Your task to perform on an android device: change alarm snooze length Image 0: 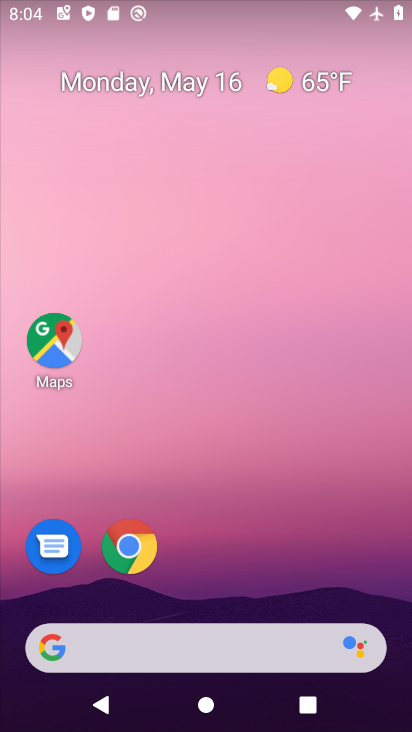
Step 0: drag from (294, 617) to (277, 148)
Your task to perform on an android device: change alarm snooze length Image 1: 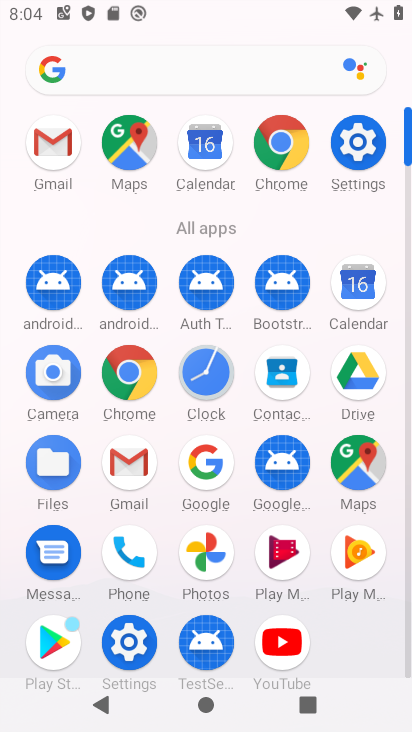
Step 1: click (210, 368)
Your task to perform on an android device: change alarm snooze length Image 2: 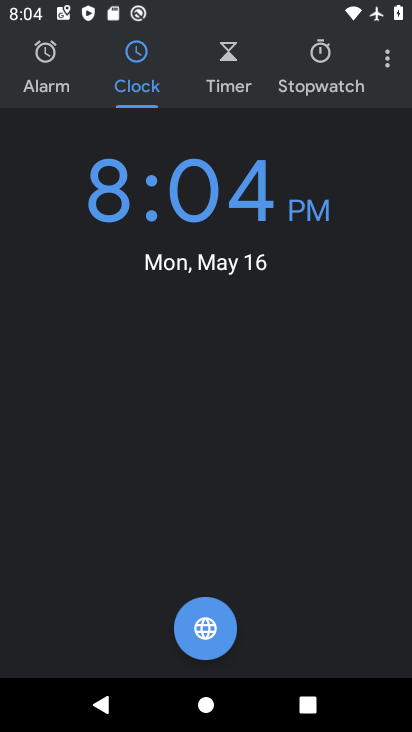
Step 2: click (389, 63)
Your task to perform on an android device: change alarm snooze length Image 3: 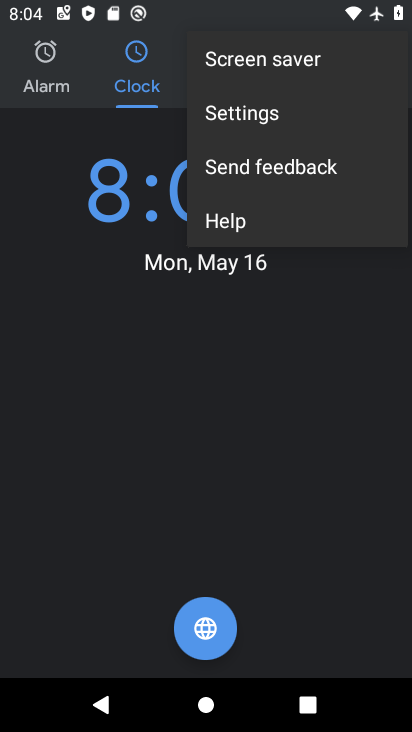
Step 3: click (310, 102)
Your task to perform on an android device: change alarm snooze length Image 4: 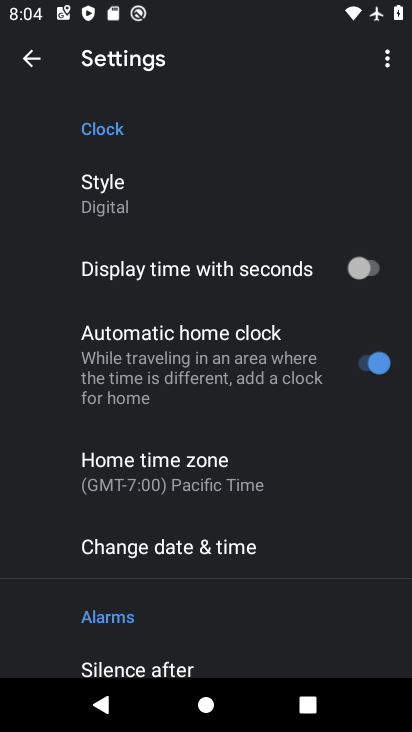
Step 4: drag from (240, 591) to (338, 91)
Your task to perform on an android device: change alarm snooze length Image 5: 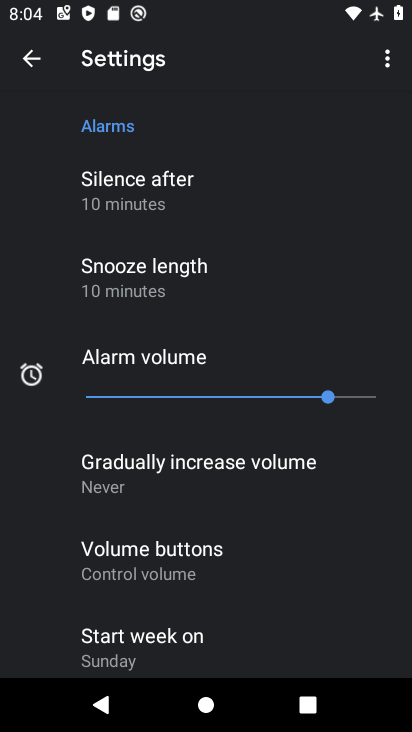
Step 5: drag from (225, 592) to (281, 362)
Your task to perform on an android device: change alarm snooze length Image 6: 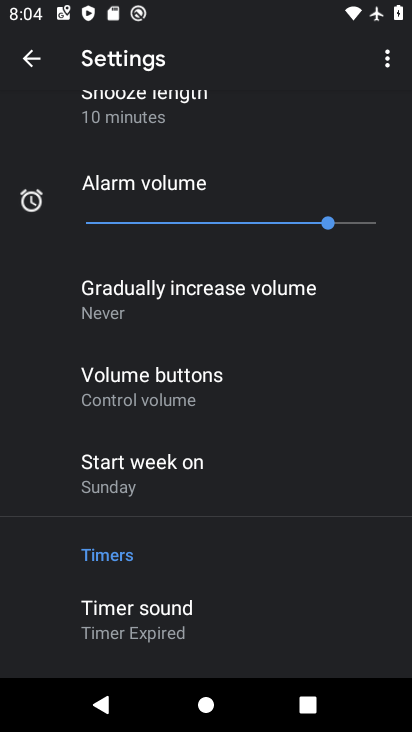
Step 6: click (197, 130)
Your task to perform on an android device: change alarm snooze length Image 7: 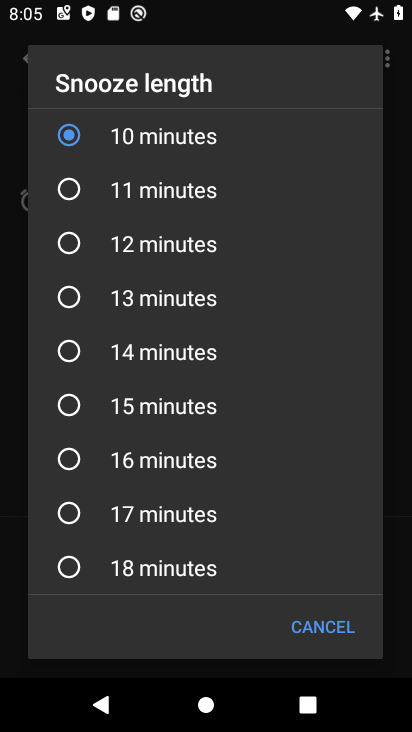
Step 7: click (130, 331)
Your task to perform on an android device: change alarm snooze length Image 8: 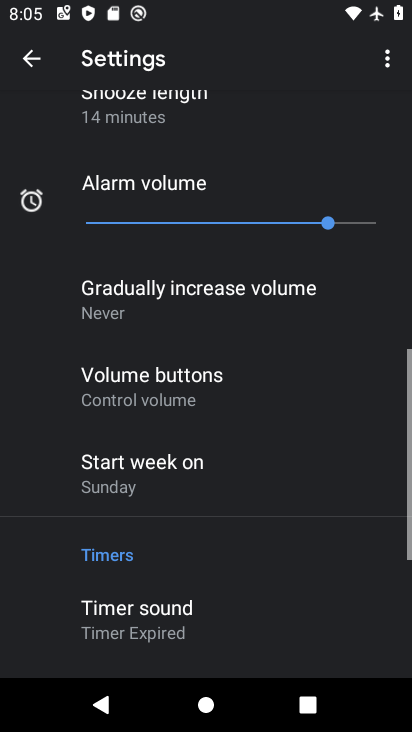
Step 8: task complete